Your task to perform on an android device: add a contact Image 0: 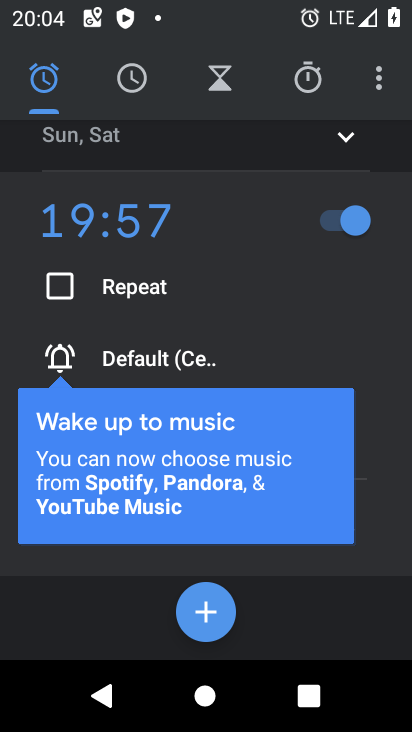
Step 0: press home button
Your task to perform on an android device: add a contact Image 1: 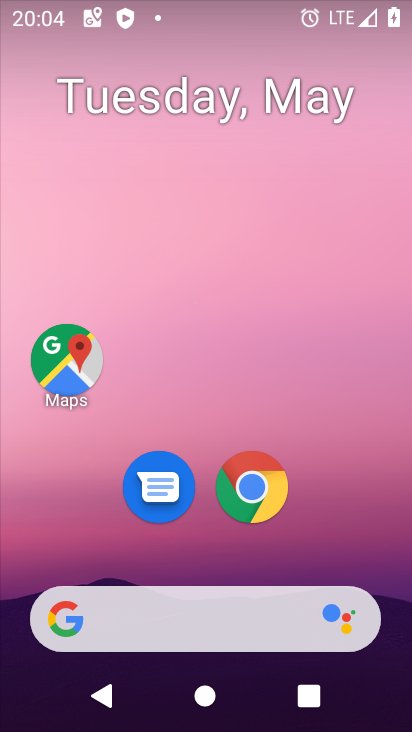
Step 1: drag from (348, 539) to (247, 85)
Your task to perform on an android device: add a contact Image 2: 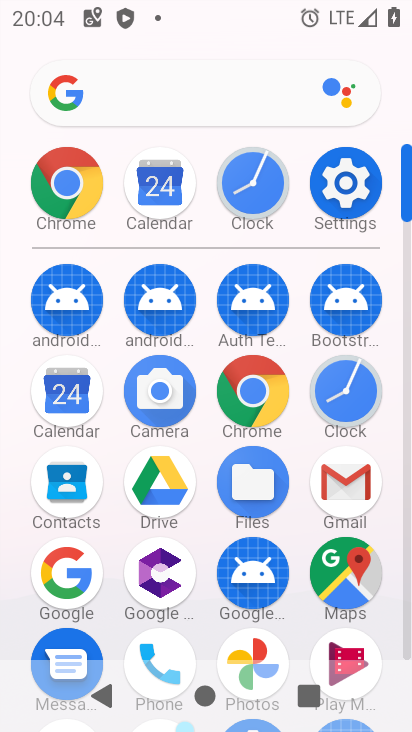
Step 2: click (73, 501)
Your task to perform on an android device: add a contact Image 3: 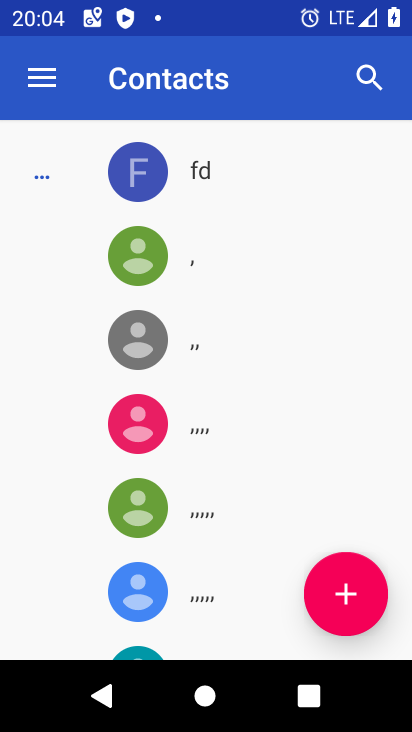
Step 3: click (336, 585)
Your task to perform on an android device: add a contact Image 4: 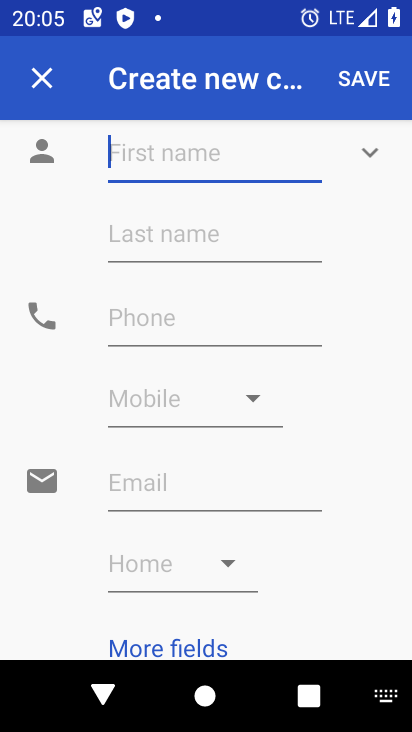
Step 4: type ";;;;;;;;"
Your task to perform on an android device: add a contact Image 5: 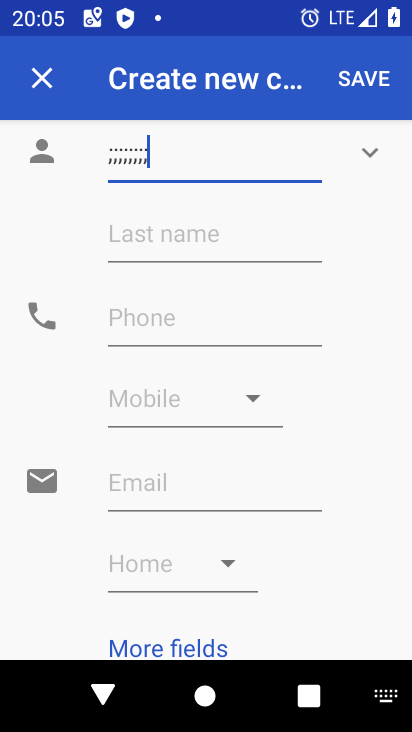
Step 5: click (191, 330)
Your task to perform on an android device: add a contact Image 6: 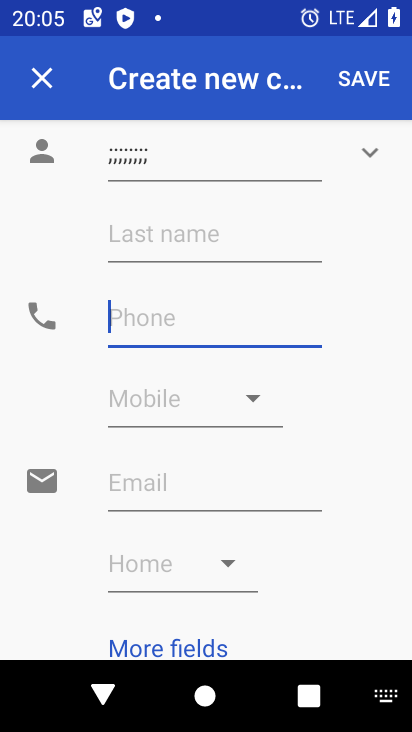
Step 6: type "00000000"
Your task to perform on an android device: add a contact Image 7: 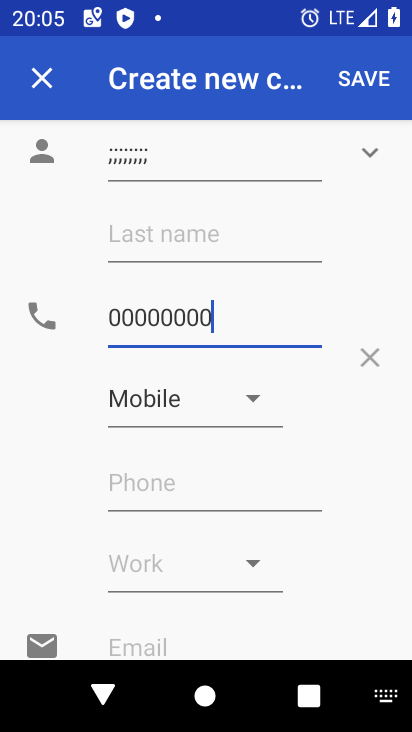
Step 7: click (362, 69)
Your task to perform on an android device: add a contact Image 8: 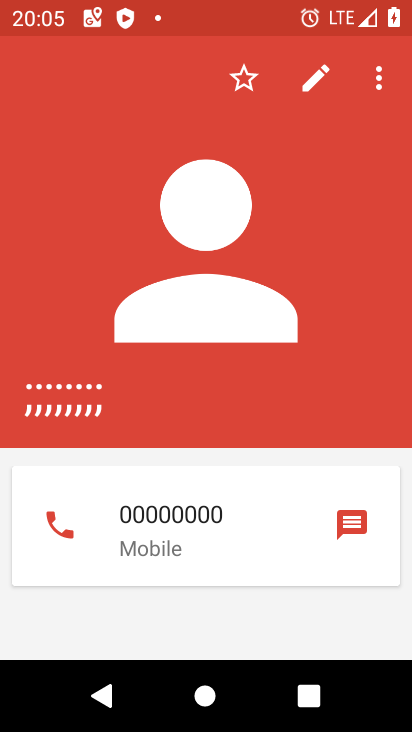
Step 8: task complete